Your task to perform on an android device: turn off location history Image 0: 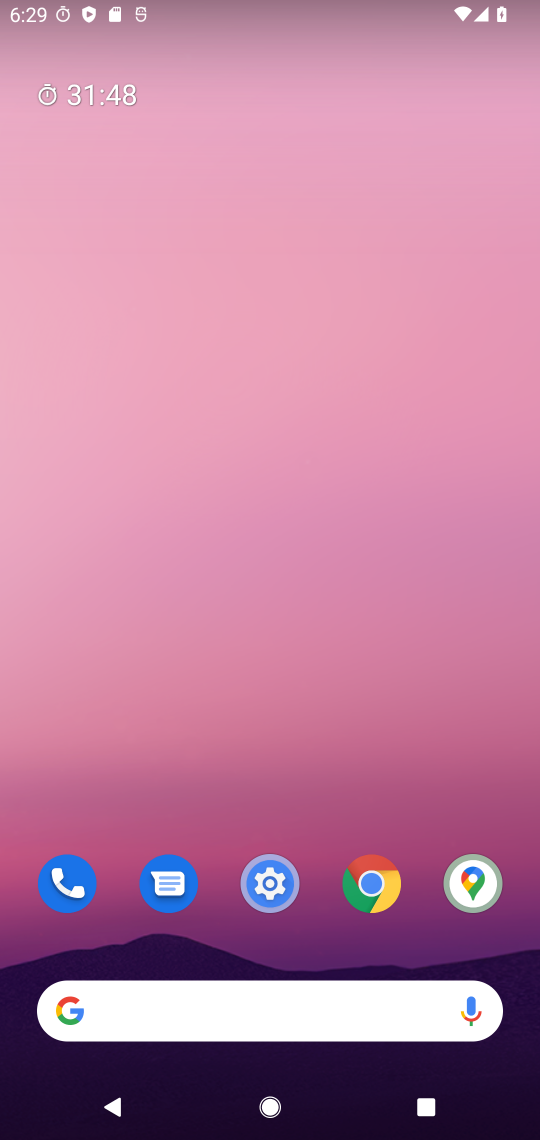
Step 0: click (291, 862)
Your task to perform on an android device: turn off location history Image 1: 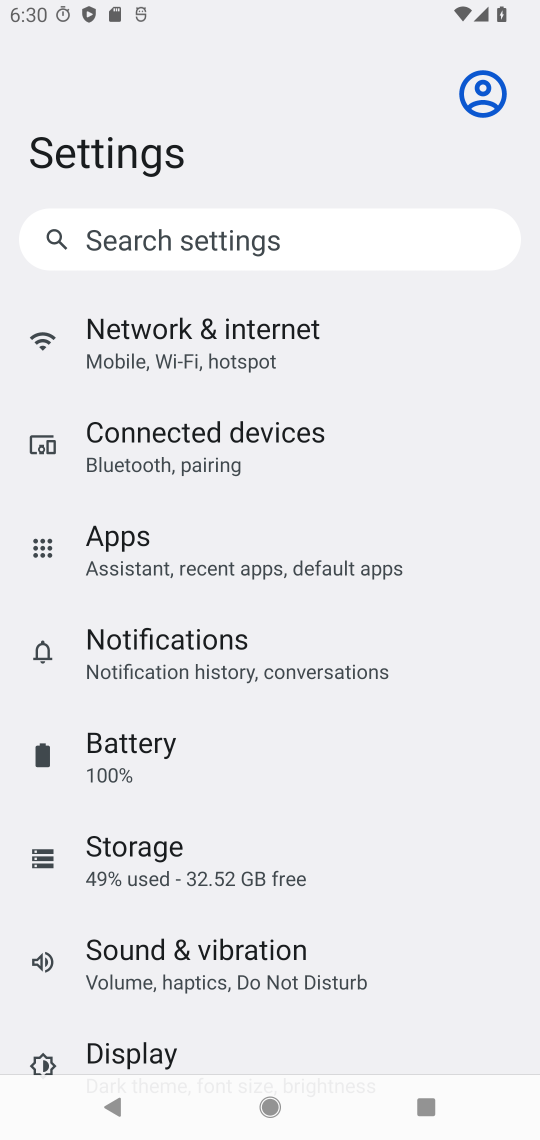
Step 1: drag from (222, 845) to (331, 318)
Your task to perform on an android device: turn off location history Image 2: 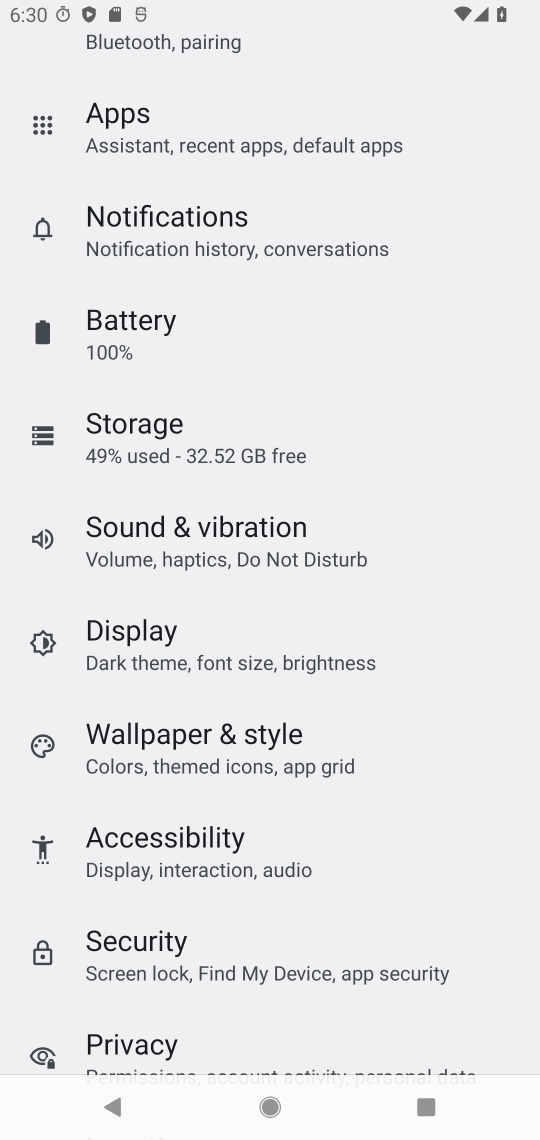
Step 2: drag from (216, 917) to (285, 439)
Your task to perform on an android device: turn off location history Image 3: 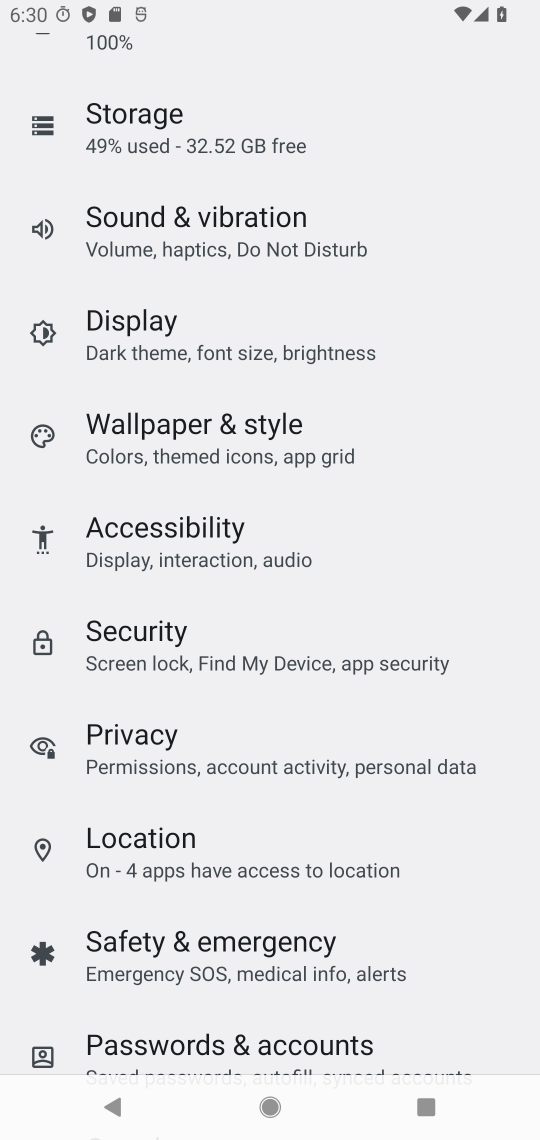
Step 3: click (193, 821)
Your task to perform on an android device: turn off location history Image 4: 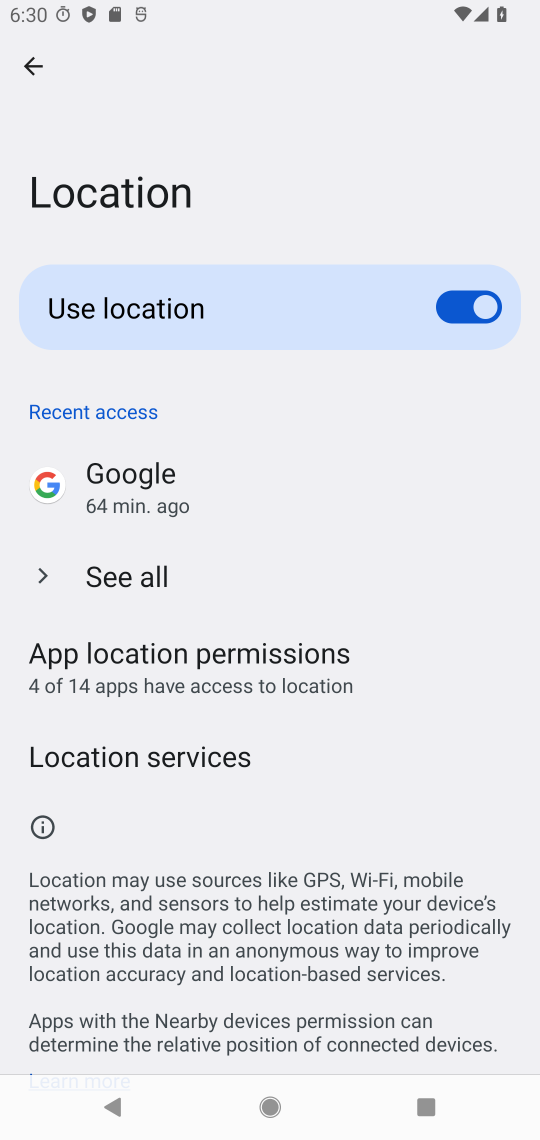
Step 4: click (264, 754)
Your task to perform on an android device: turn off location history Image 5: 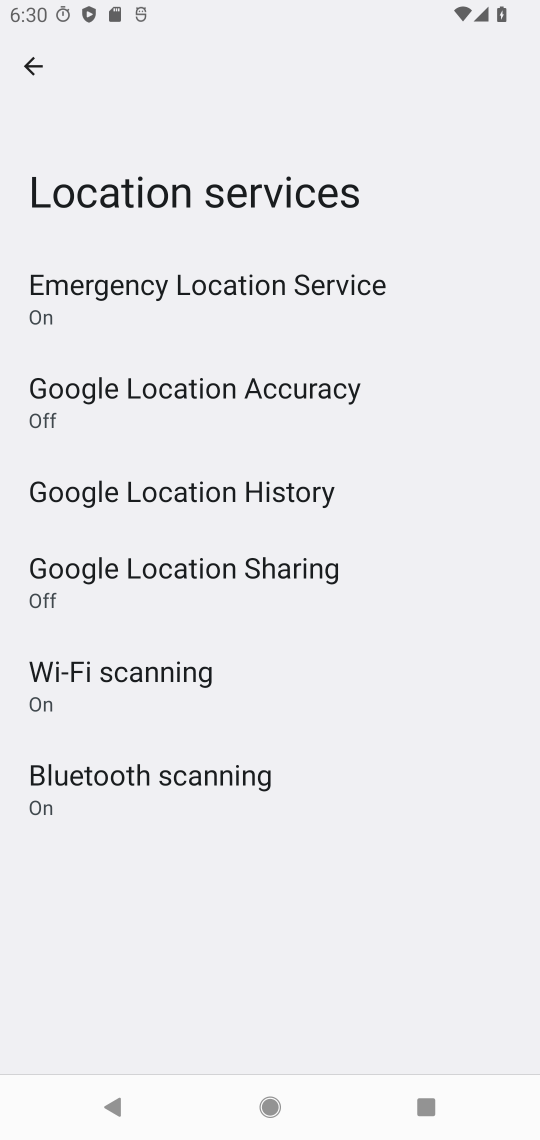
Step 5: click (319, 472)
Your task to perform on an android device: turn off location history Image 6: 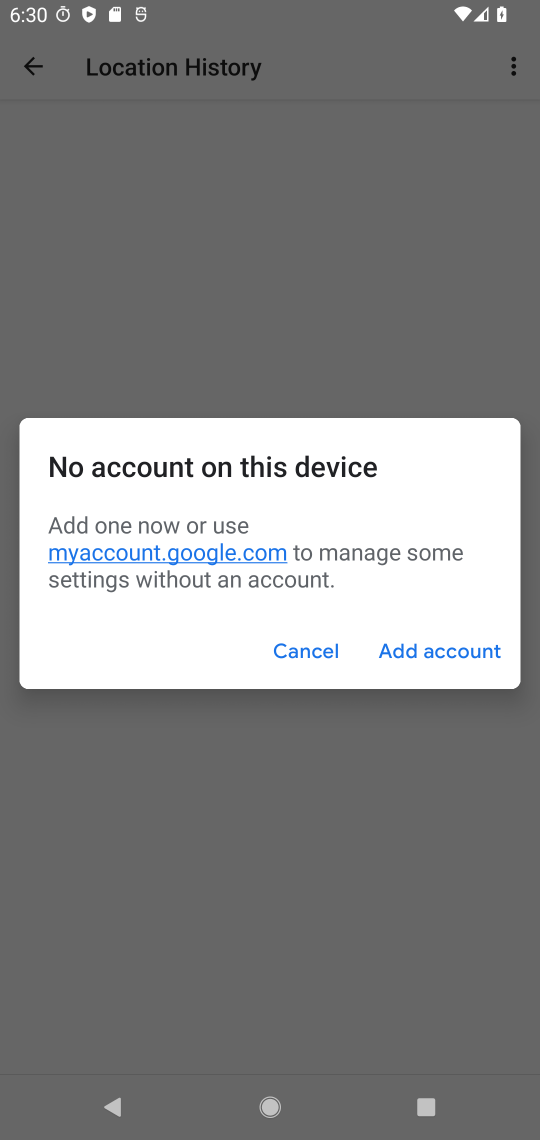
Step 6: click (302, 650)
Your task to perform on an android device: turn off location history Image 7: 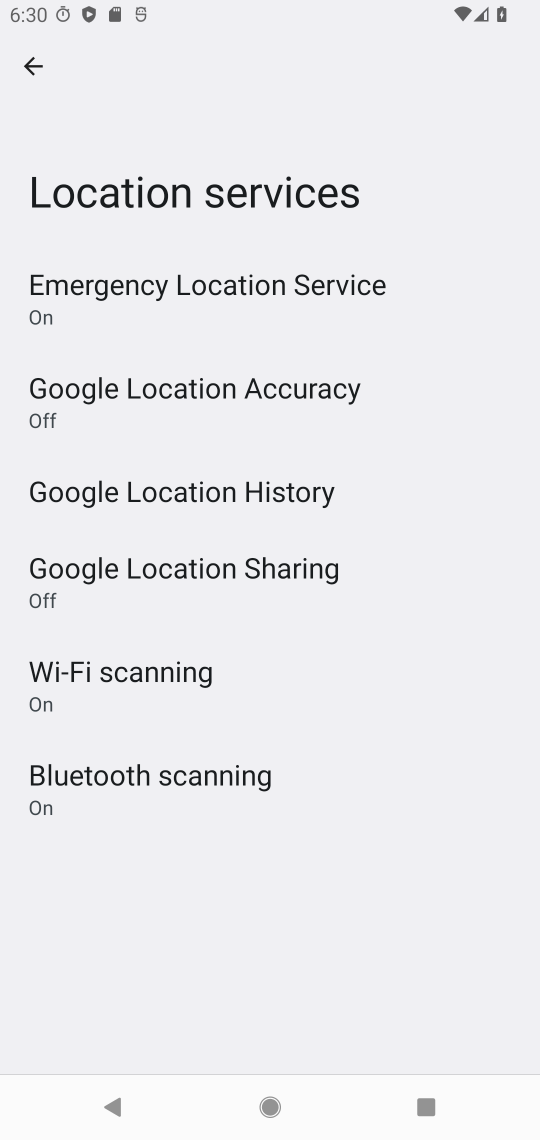
Step 7: click (282, 487)
Your task to perform on an android device: turn off location history Image 8: 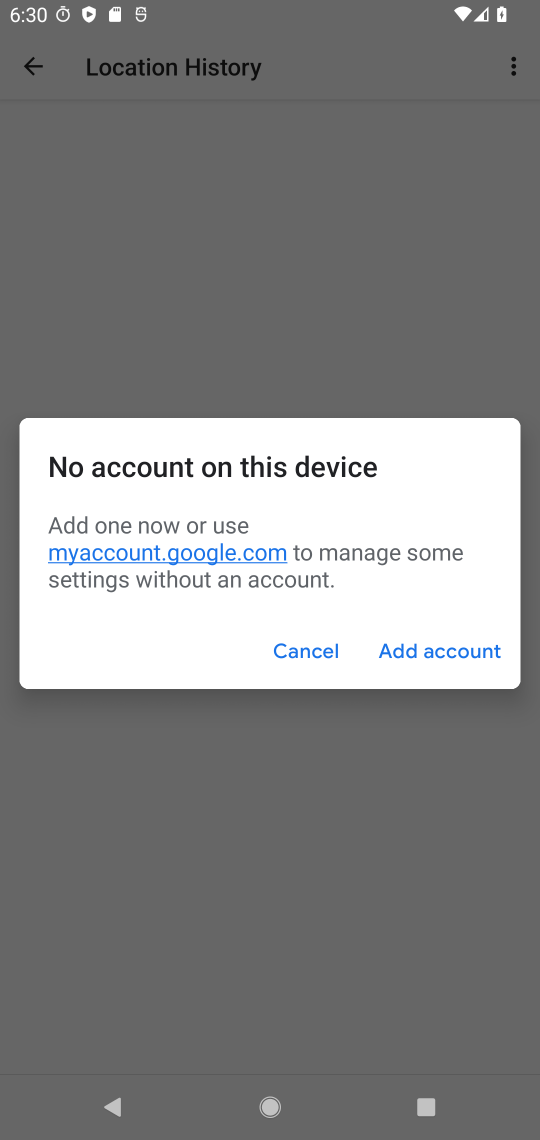
Step 8: task complete